Your task to perform on an android device: Open internet settings Image 0: 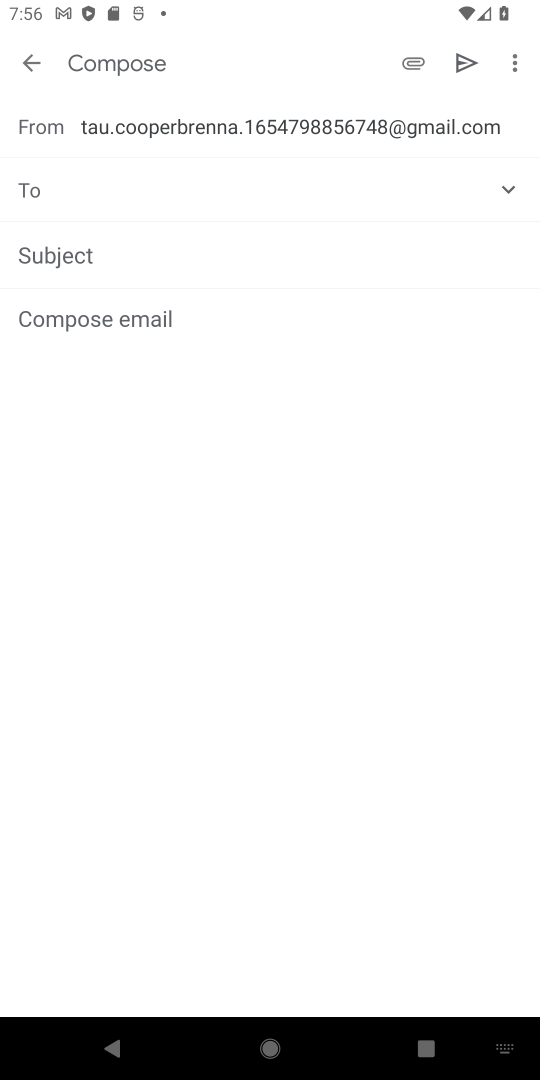
Step 0: press home button
Your task to perform on an android device: Open internet settings Image 1: 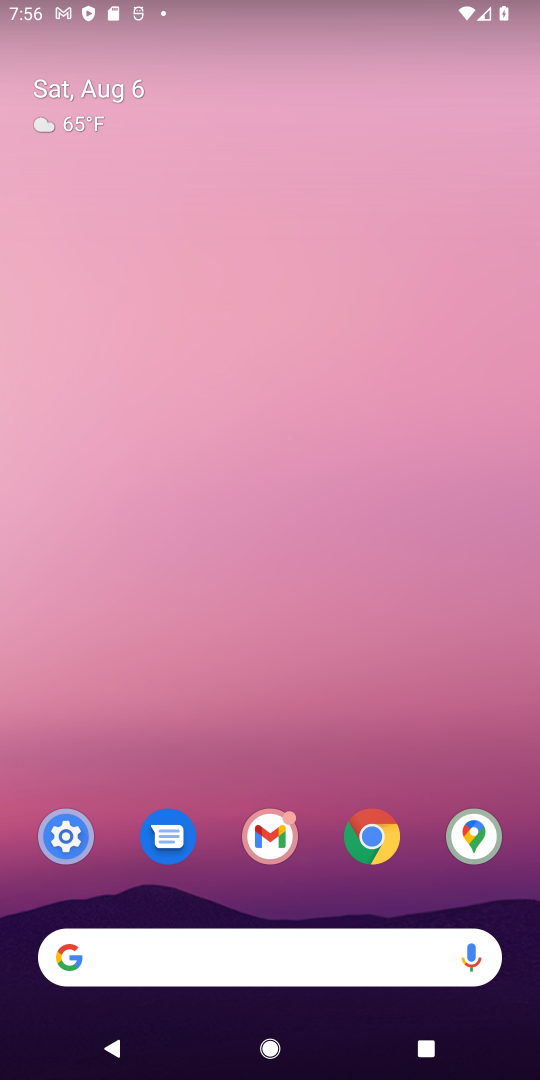
Step 1: drag from (514, 901) to (372, 110)
Your task to perform on an android device: Open internet settings Image 2: 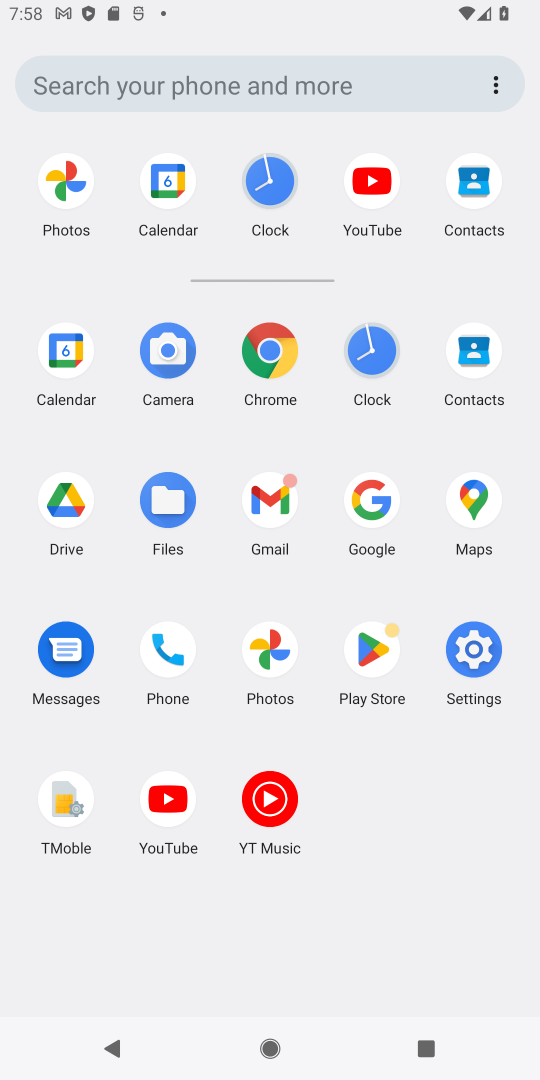
Step 2: click (477, 665)
Your task to perform on an android device: Open internet settings Image 3: 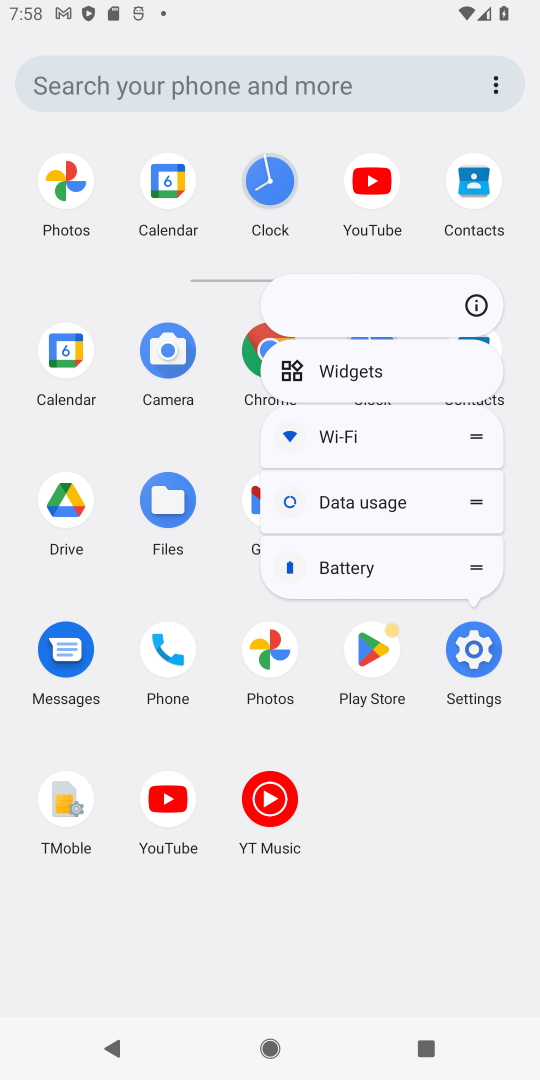
Step 3: click (474, 662)
Your task to perform on an android device: Open internet settings Image 4: 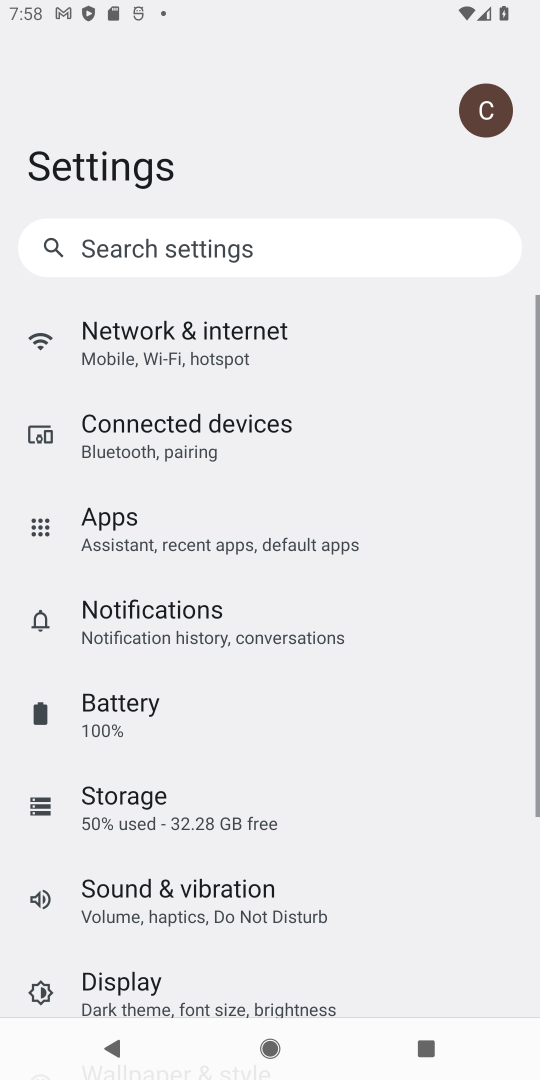
Step 4: click (246, 354)
Your task to perform on an android device: Open internet settings Image 5: 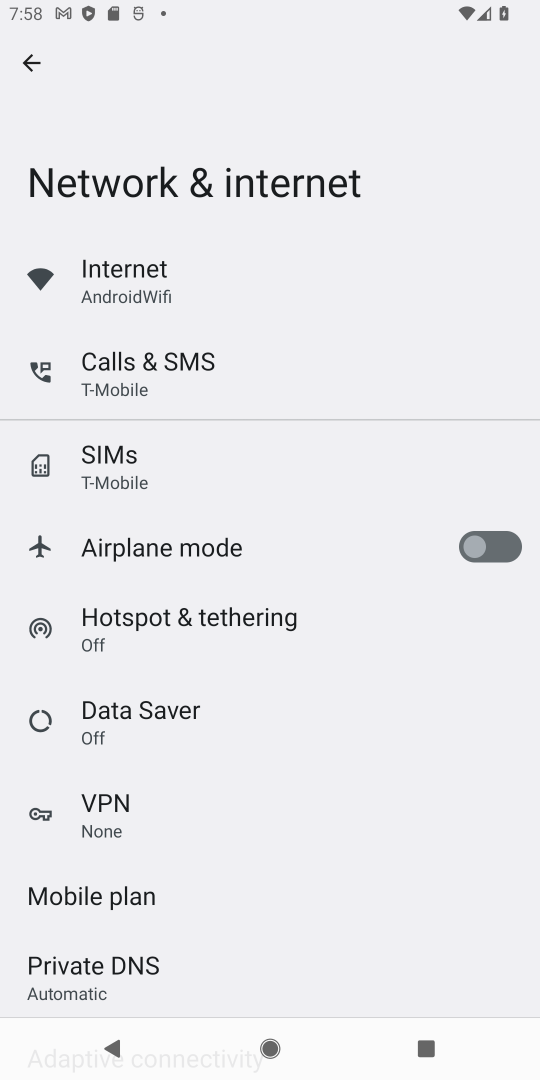
Step 5: task complete